Your task to perform on an android device: Search for seafood restaurants on Google Maps Image 0: 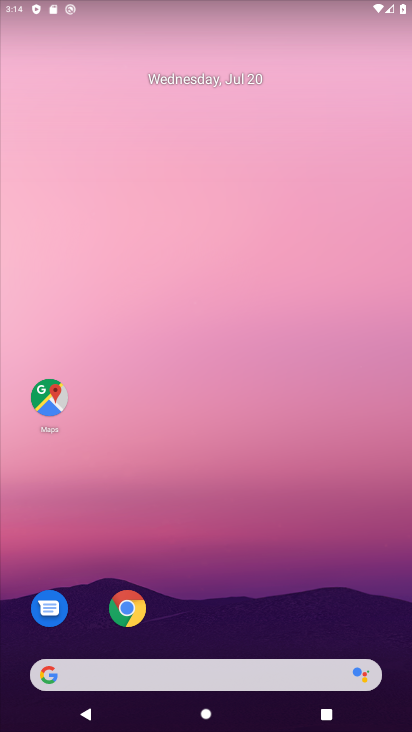
Step 0: drag from (393, 688) to (329, 59)
Your task to perform on an android device: Search for seafood restaurants on Google Maps Image 1: 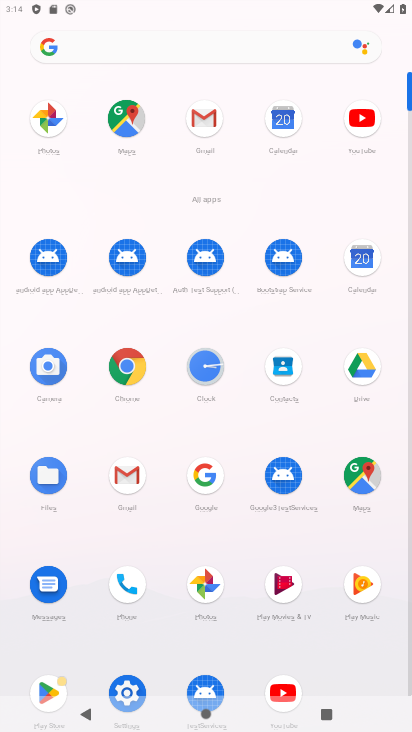
Step 1: click (373, 470)
Your task to perform on an android device: Search for seafood restaurants on Google Maps Image 2: 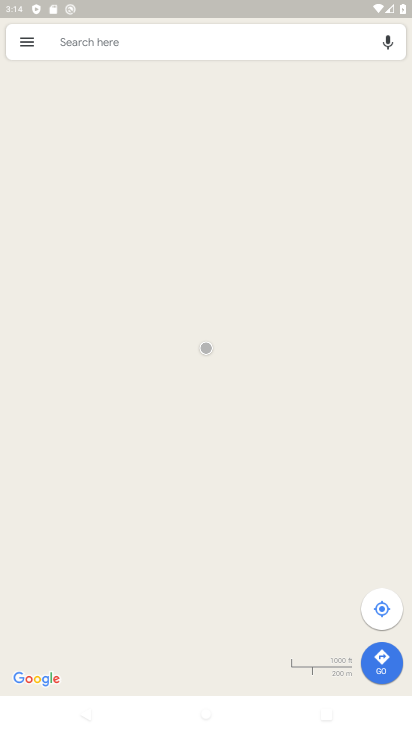
Step 2: click (103, 38)
Your task to perform on an android device: Search for seafood restaurants on Google Maps Image 3: 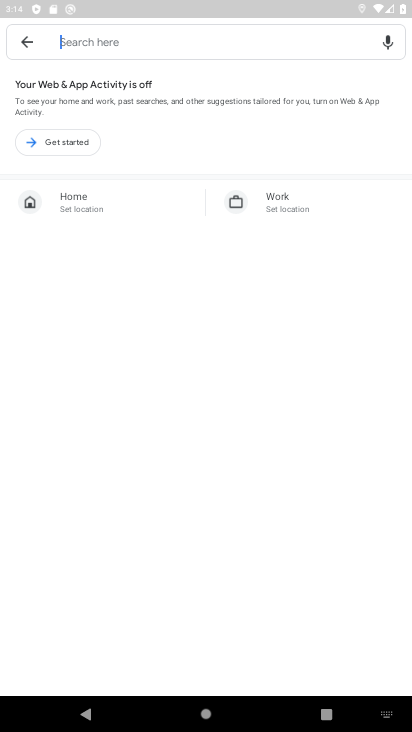
Step 3: type " seafood restaurants "
Your task to perform on an android device: Search for seafood restaurants on Google Maps Image 4: 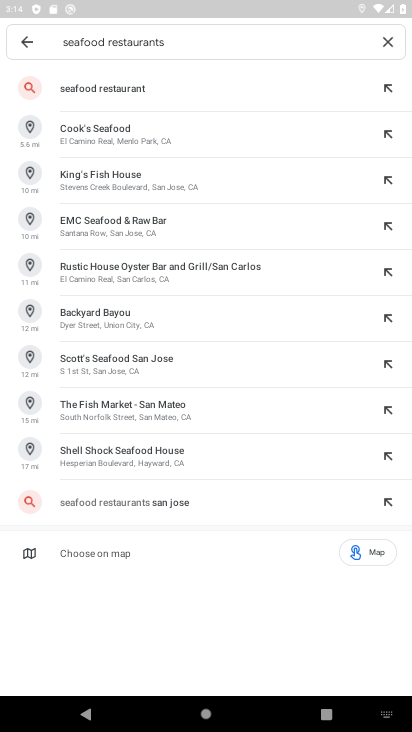
Step 4: click (97, 78)
Your task to perform on an android device: Search for seafood restaurants on Google Maps Image 5: 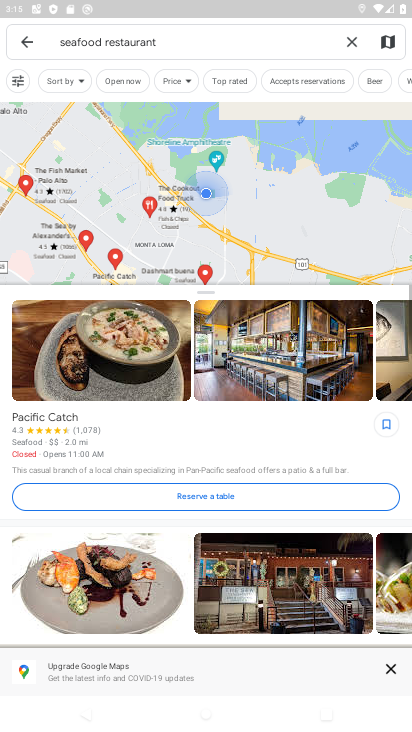
Step 5: task complete